Your task to perform on an android device: Go to location settings Image 0: 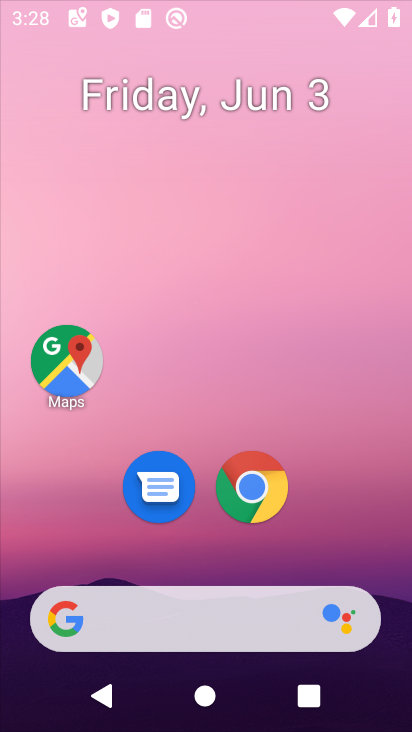
Step 0: drag from (221, 254) to (235, 15)
Your task to perform on an android device: Go to location settings Image 1: 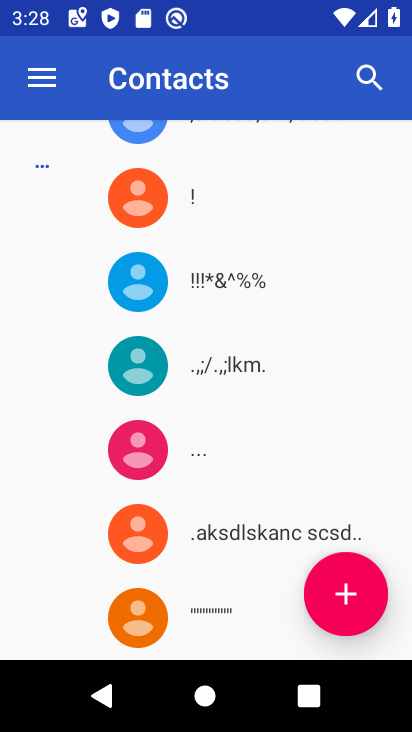
Step 1: press home button
Your task to perform on an android device: Go to location settings Image 2: 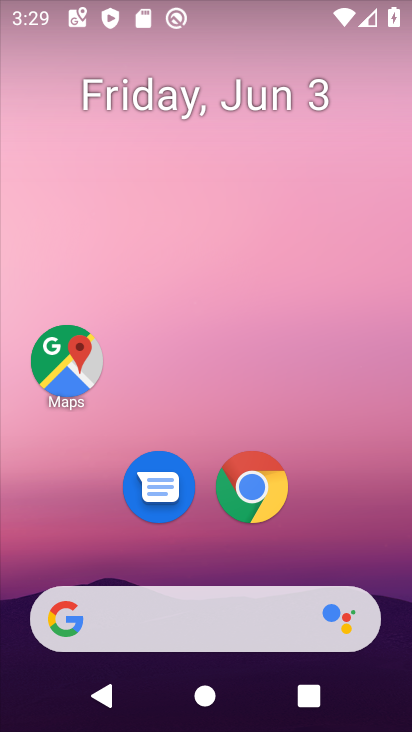
Step 2: drag from (202, 579) to (213, 240)
Your task to perform on an android device: Go to location settings Image 3: 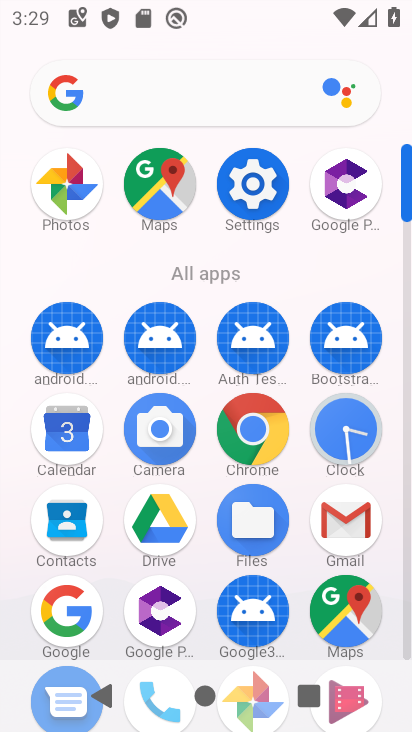
Step 3: click (272, 185)
Your task to perform on an android device: Go to location settings Image 4: 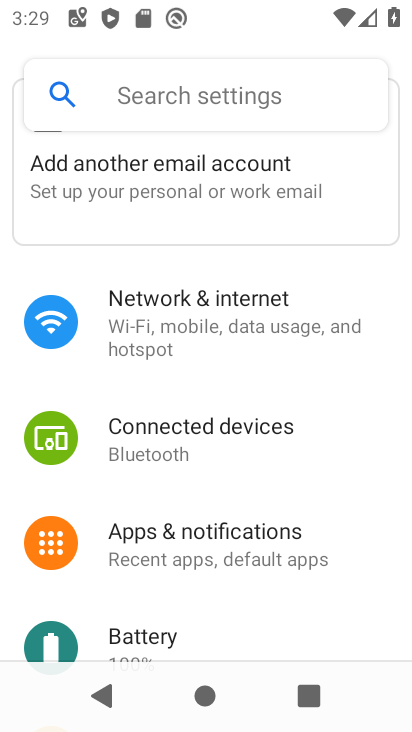
Step 4: drag from (173, 488) to (232, 113)
Your task to perform on an android device: Go to location settings Image 5: 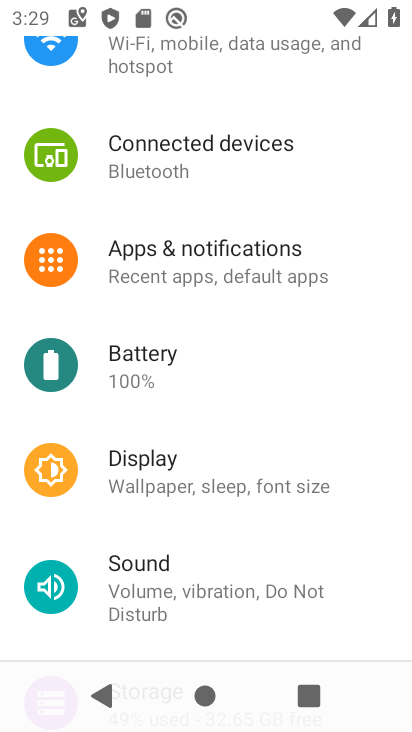
Step 5: drag from (197, 499) to (259, 42)
Your task to perform on an android device: Go to location settings Image 6: 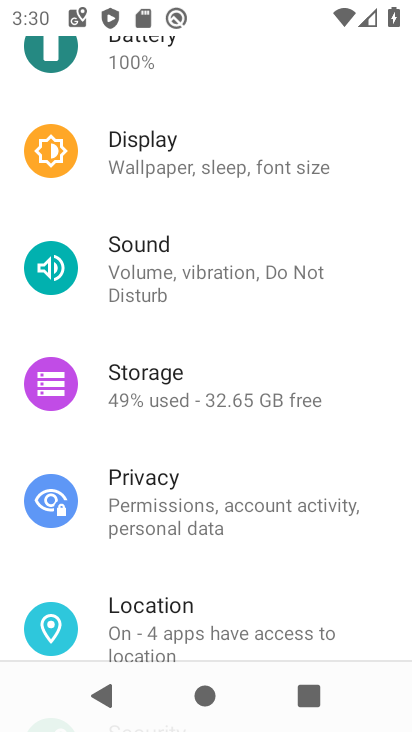
Step 6: click (178, 597)
Your task to perform on an android device: Go to location settings Image 7: 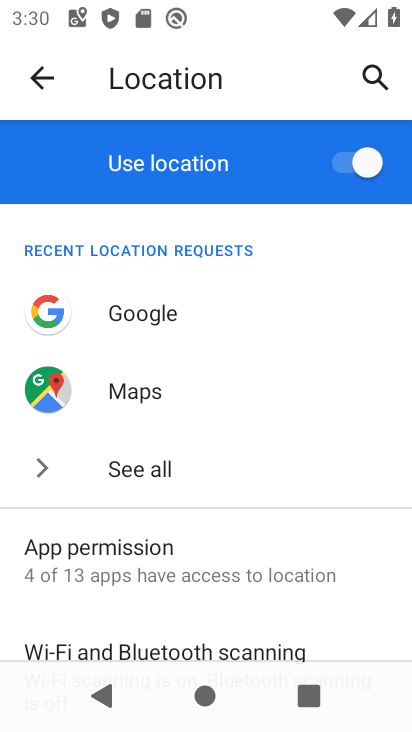
Step 7: task complete